Your task to perform on an android device: change the upload size in google photos Image 0: 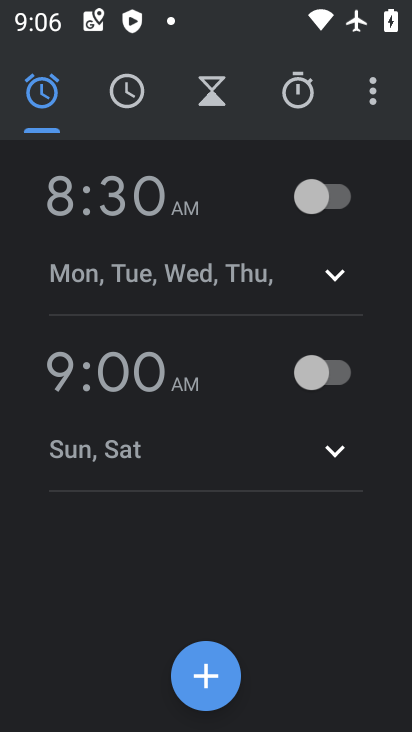
Step 0: press home button
Your task to perform on an android device: change the upload size in google photos Image 1: 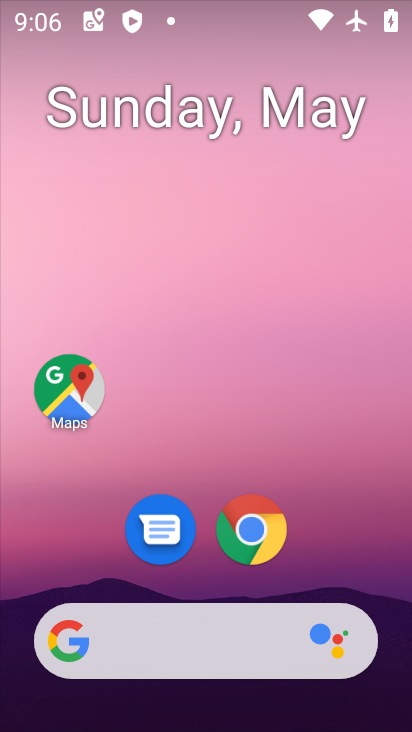
Step 1: drag from (315, 587) to (275, 85)
Your task to perform on an android device: change the upload size in google photos Image 2: 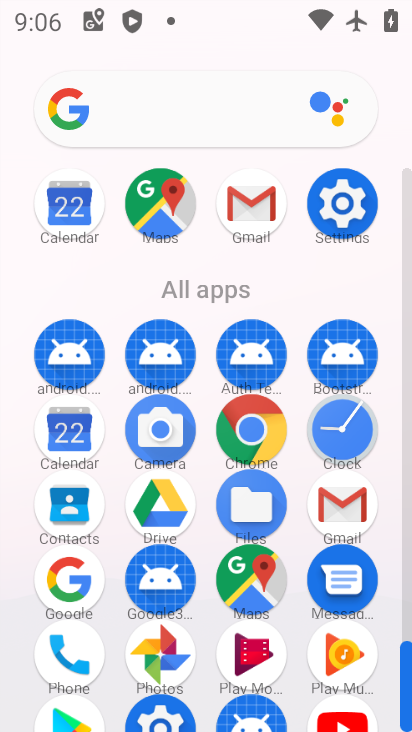
Step 2: click (155, 656)
Your task to perform on an android device: change the upload size in google photos Image 3: 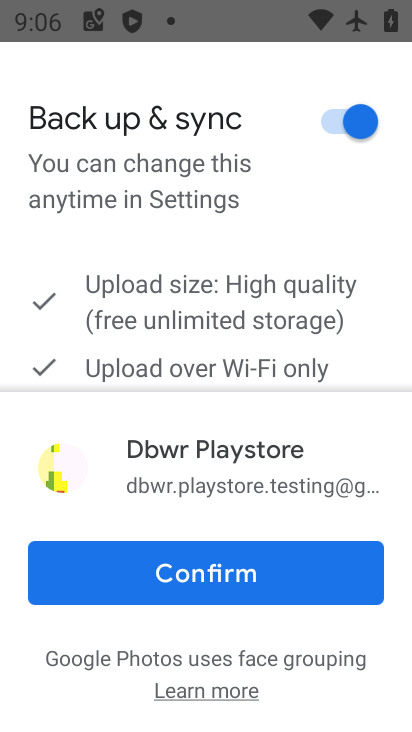
Step 3: click (194, 561)
Your task to perform on an android device: change the upload size in google photos Image 4: 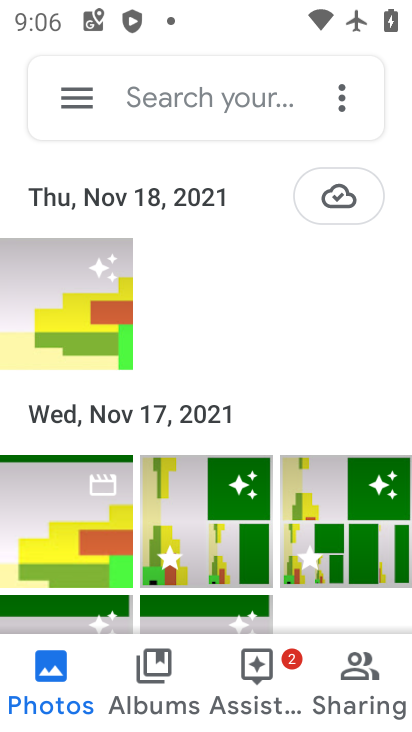
Step 4: click (92, 97)
Your task to perform on an android device: change the upload size in google photos Image 5: 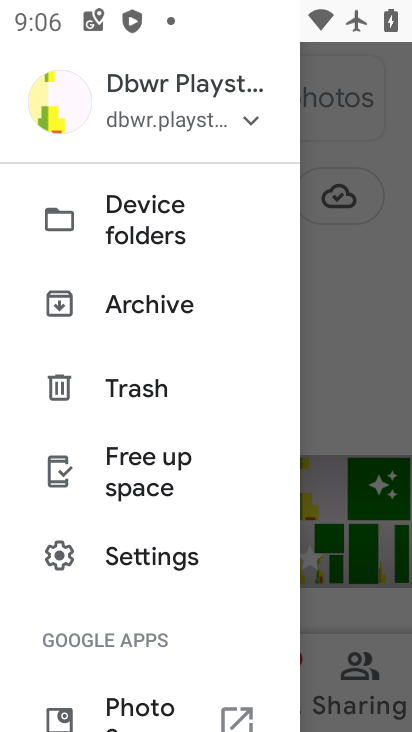
Step 5: click (115, 559)
Your task to perform on an android device: change the upload size in google photos Image 6: 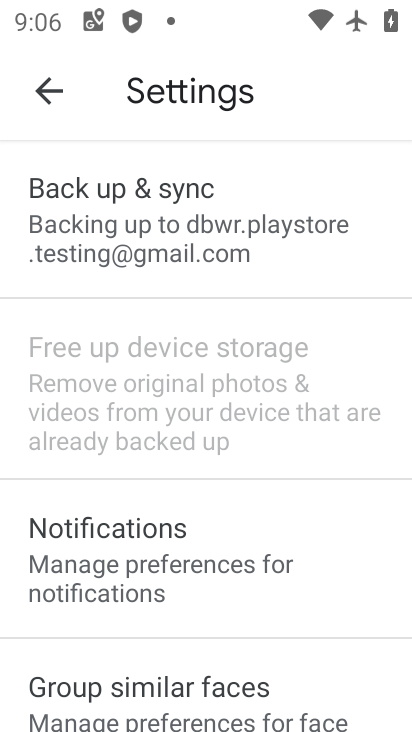
Step 6: click (160, 220)
Your task to perform on an android device: change the upload size in google photos Image 7: 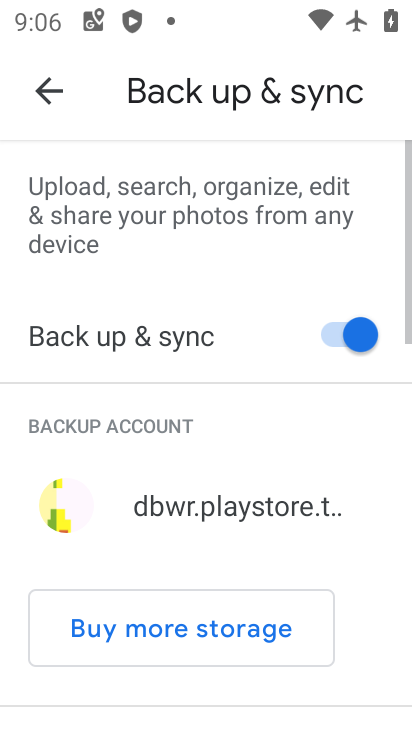
Step 7: drag from (203, 539) to (188, 112)
Your task to perform on an android device: change the upload size in google photos Image 8: 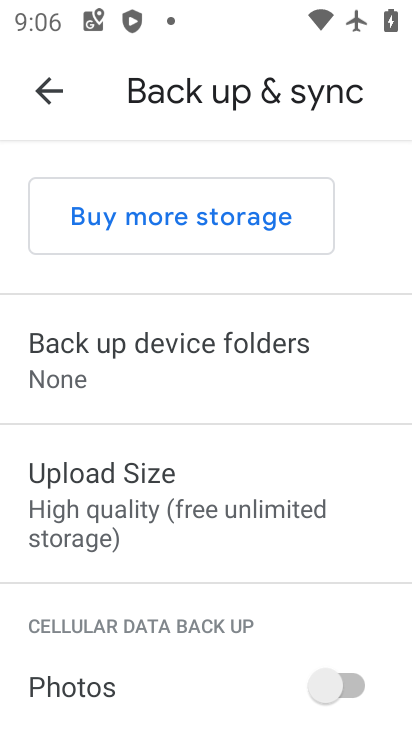
Step 8: click (137, 531)
Your task to perform on an android device: change the upload size in google photos Image 9: 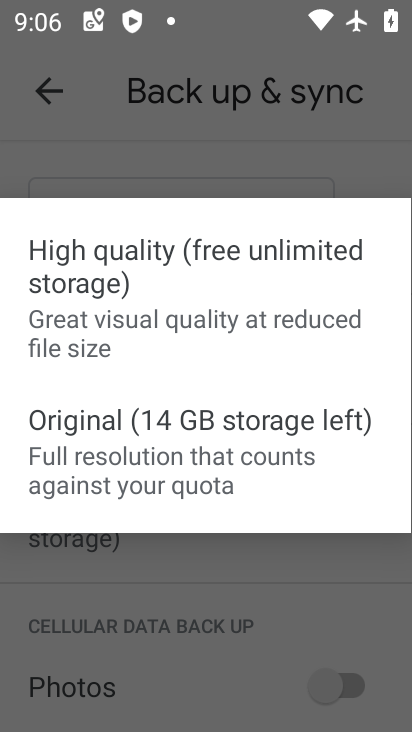
Step 9: click (80, 453)
Your task to perform on an android device: change the upload size in google photos Image 10: 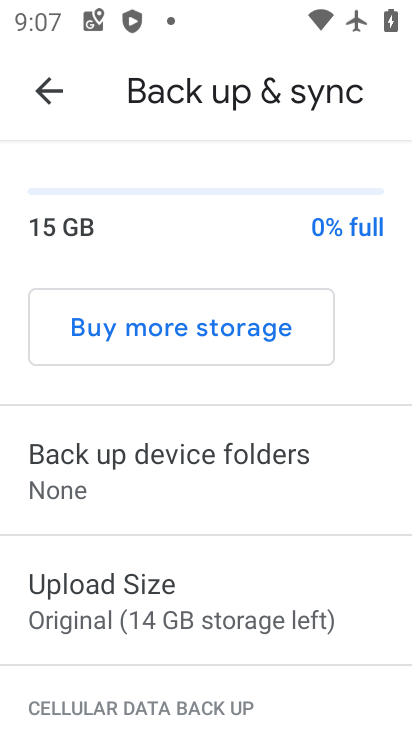
Step 10: task complete